Your task to perform on an android device: toggle sleep mode Image 0: 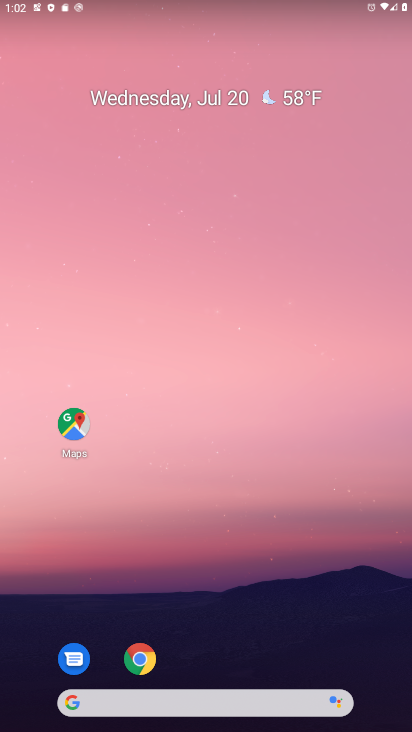
Step 0: drag from (208, 654) to (279, 257)
Your task to perform on an android device: toggle sleep mode Image 1: 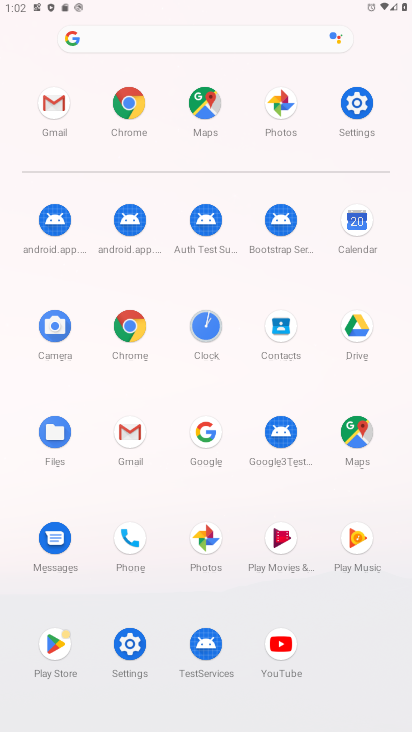
Step 1: click (126, 634)
Your task to perform on an android device: toggle sleep mode Image 2: 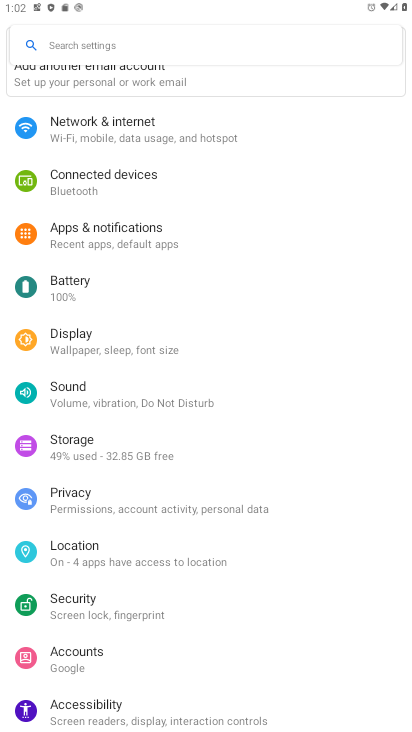
Step 2: click (91, 327)
Your task to perform on an android device: toggle sleep mode Image 3: 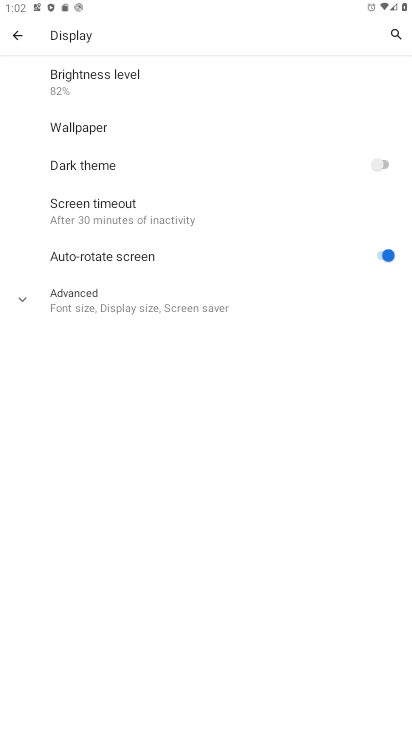
Step 3: click (27, 292)
Your task to perform on an android device: toggle sleep mode Image 4: 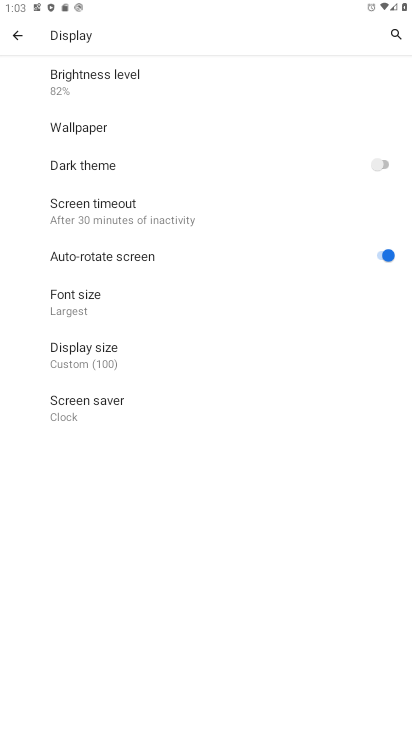
Step 4: task complete